Your task to perform on an android device: check google app version Image 0: 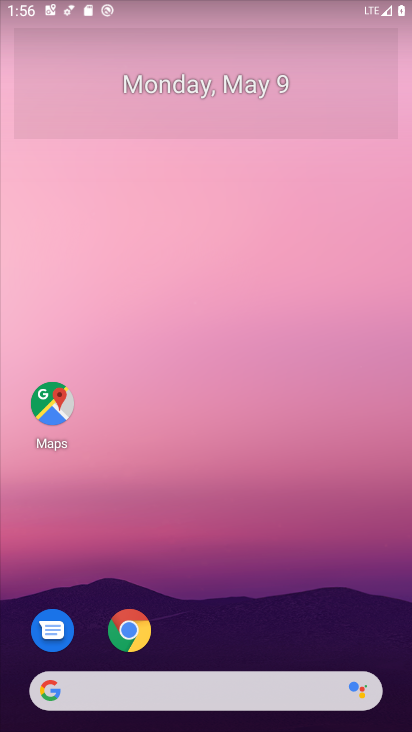
Step 0: click (64, 688)
Your task to perform on an android device: check google app version Image 1: 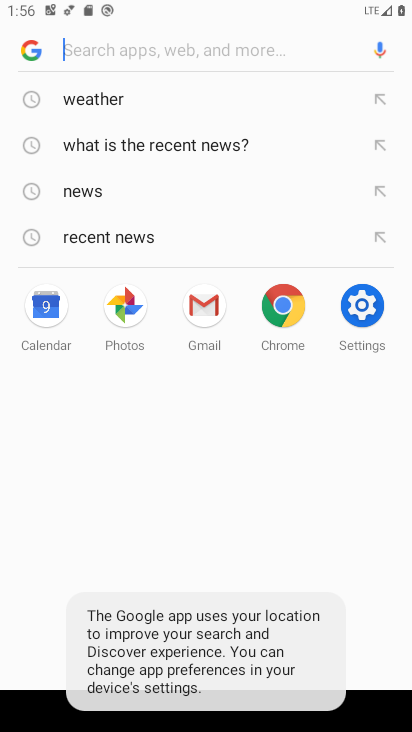
Step 1: click (34, 62)
Your task to perform on an android device: check google app version Image 2: 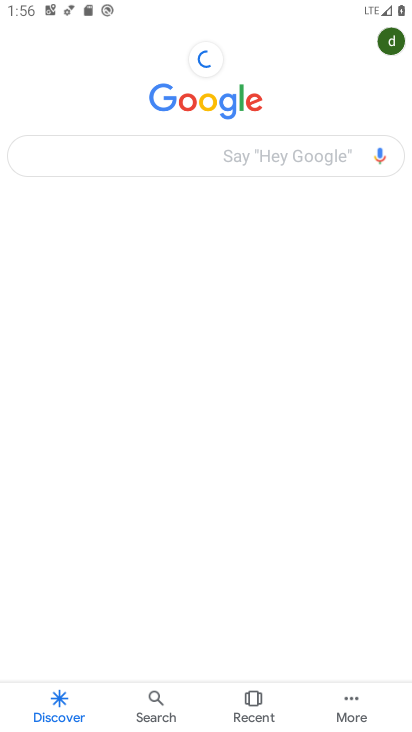
Step 2: click (348, 702)
Your task to perform on an android device: check google app version Image 3: 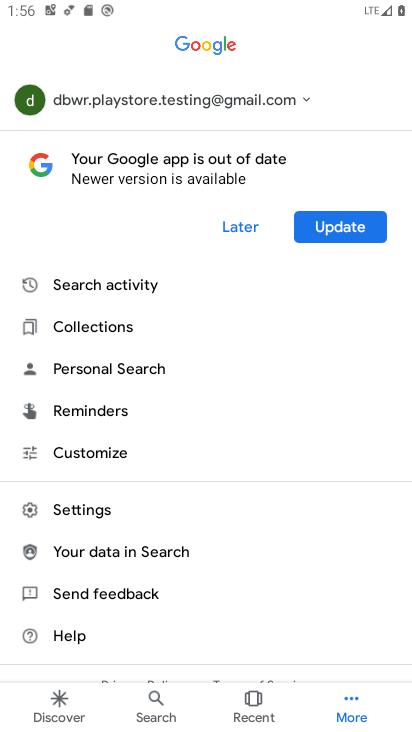
Step 3: click (82, 520)
Your task to perform on an android device: check google app version Image 4: 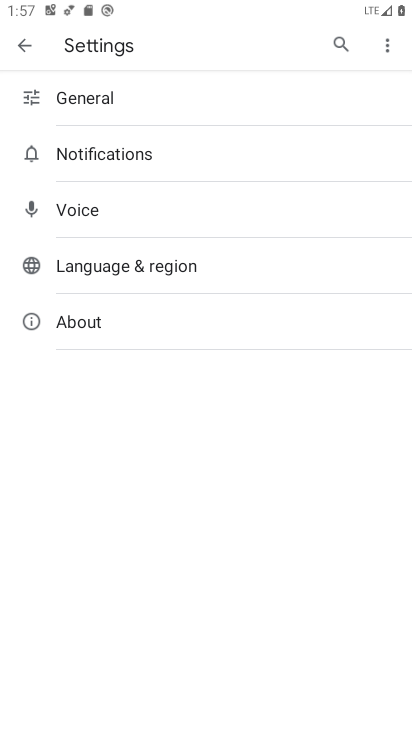
Step 4: click (119, 323)
Your task to perform on an android device: check google app version Image 5: 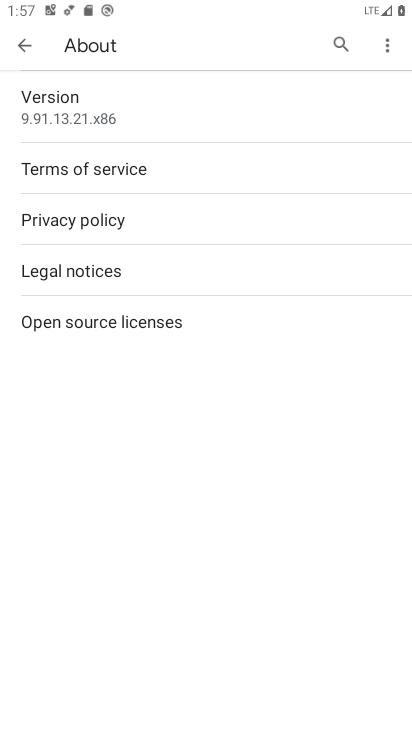
Step 5: task complete